Your task to perform on an android device: turn on the 24-hour format for clock Image 0: 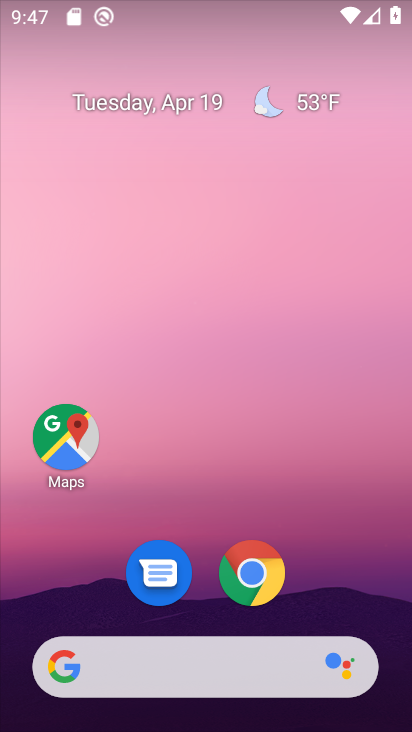
Step 0: drag from (209, 607) to (233, 15)
Your task to perform on an android device: turn on the 24-hour format for clock Image 1: 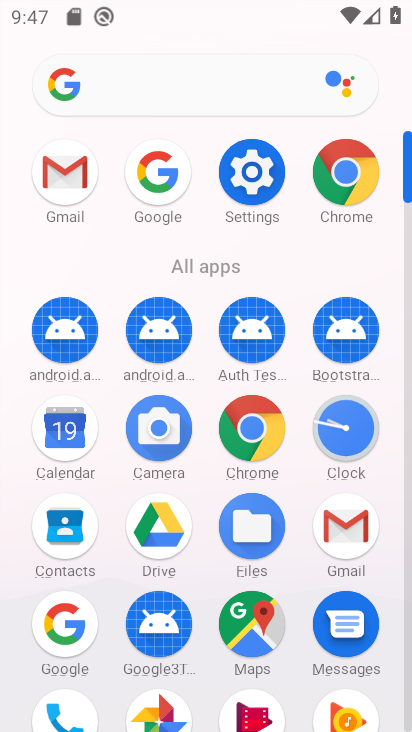
Step 1: click (344, 418)
Your task to perform on an android device: turn on the 24-hour format for clock Image 2: 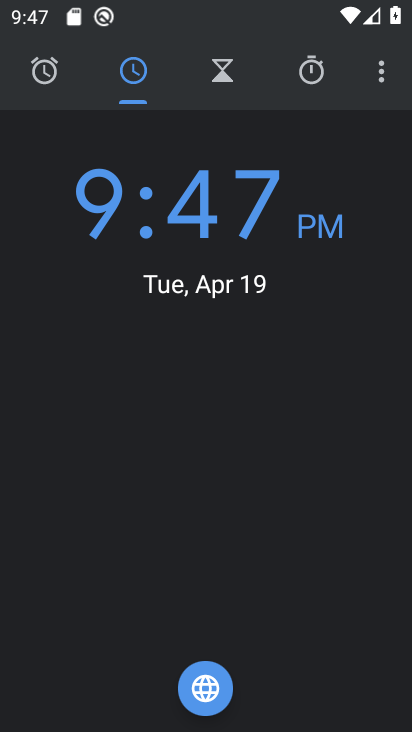
Step 2: click (378, 77)
Your task to perform on an android device: turn on the 24-hour format for clock Image 3: 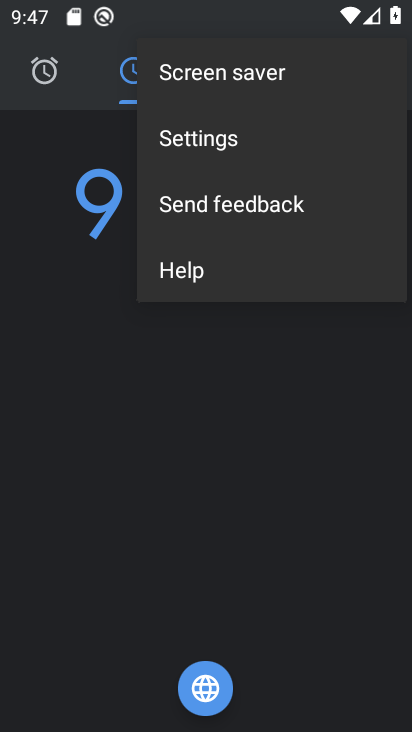
Step 3: click (249, 138)
Your task to perform on an android device: turn on the 24-hour format for clock Image 4: 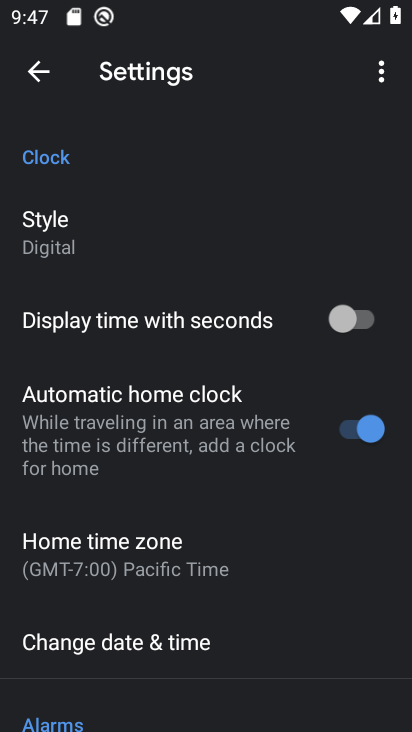
Step 4: drag from (236, 675) to (268, 185)
Your task to perform on an android device: turn on the 24-hour format for clock Image 5: 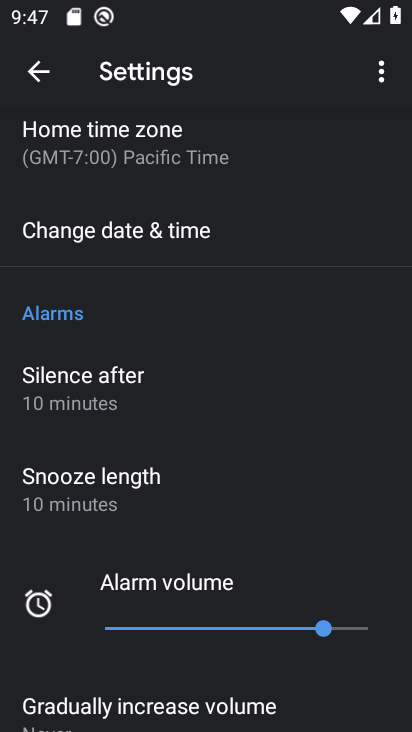
Step 5: click (228, 223)
Your task to perform on an android device: turn on the 24-hour format for clock Image 6: 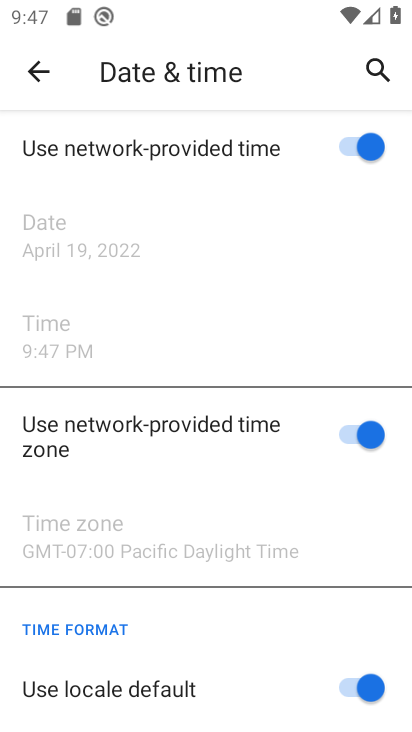
Step 6: drag from (245, 661) to (286, 253)
Your task to perform on an android device: turn on the 24-hour format for clock Image 7: 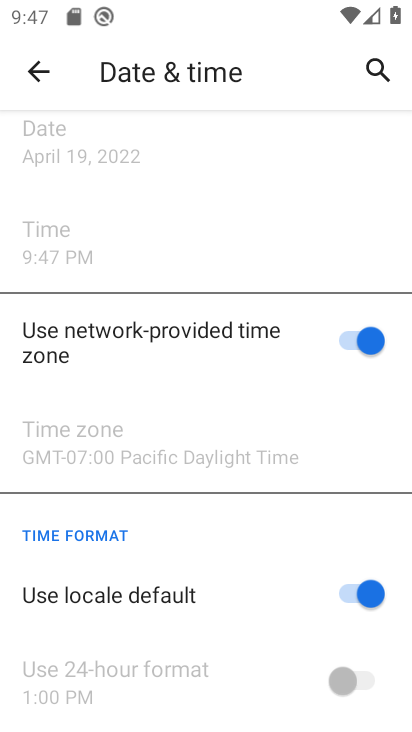
Step 7: click (351, 593)
Your task to perform on an android device: turn on the 24-hour format for clock Image 8: 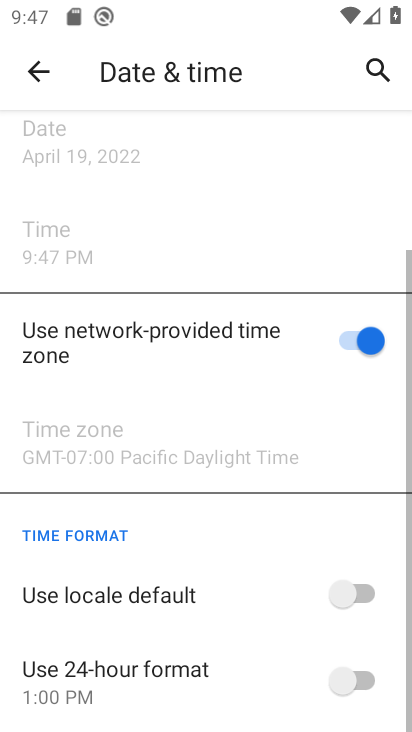
Step 8: click (358, 675)
Your task to perform on an android device: turn on the 24-hour format for clock Image 9: 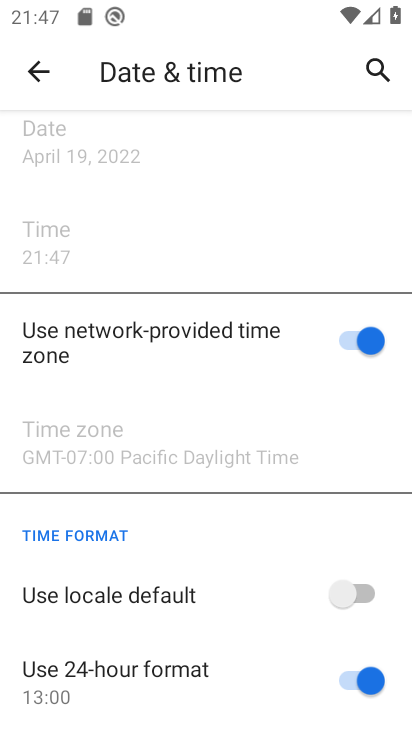
Step 9: task complete